Your task to perform on an android device: toggle improve location accuracy Image 0: 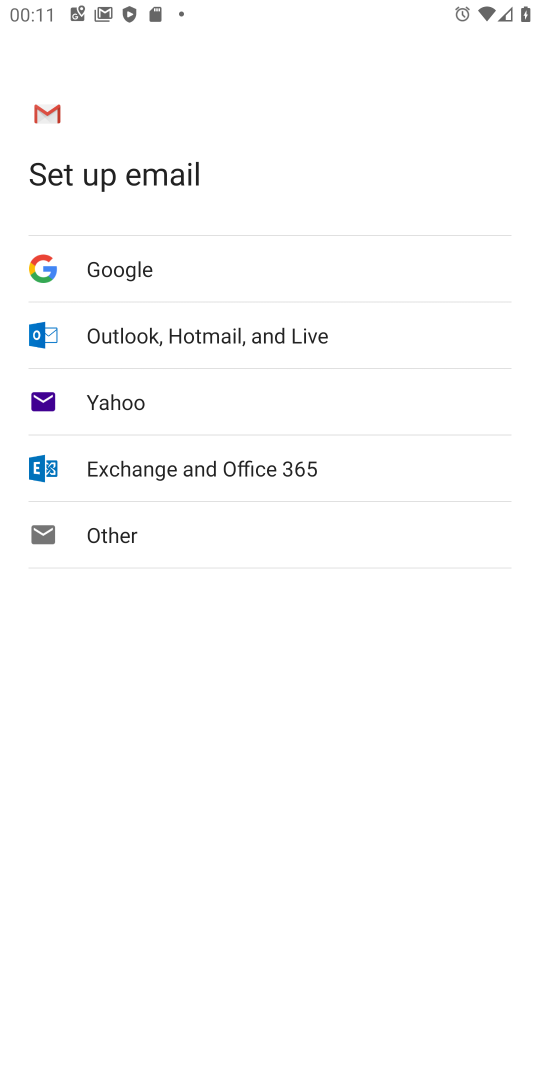
Step 0: press home button
Your task to perform on an android device: toggle improve location accuracy Image 1: 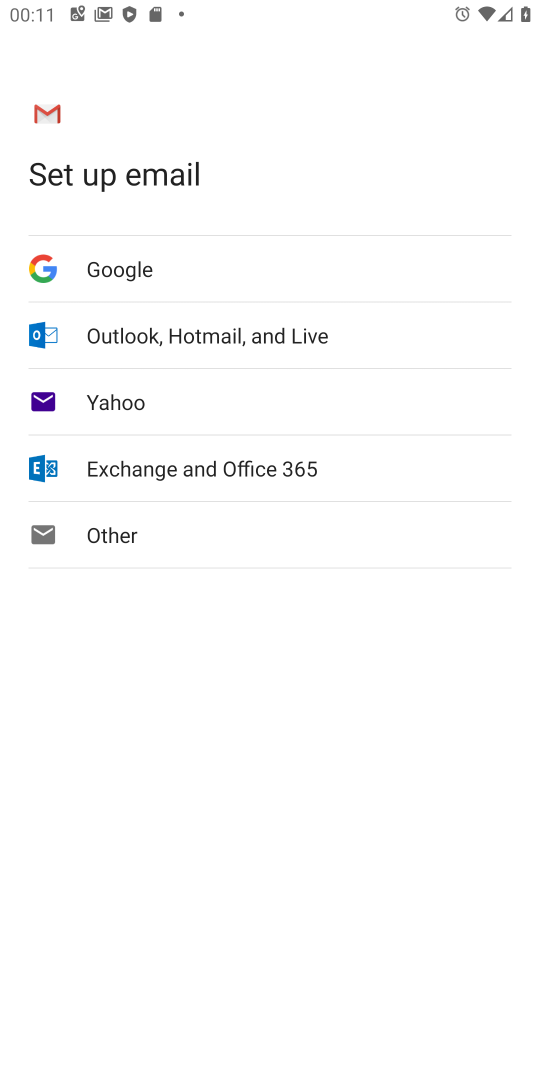
Step 1: press home button
Your task to perform on an android device: toggle improve location accuracy Image 2: 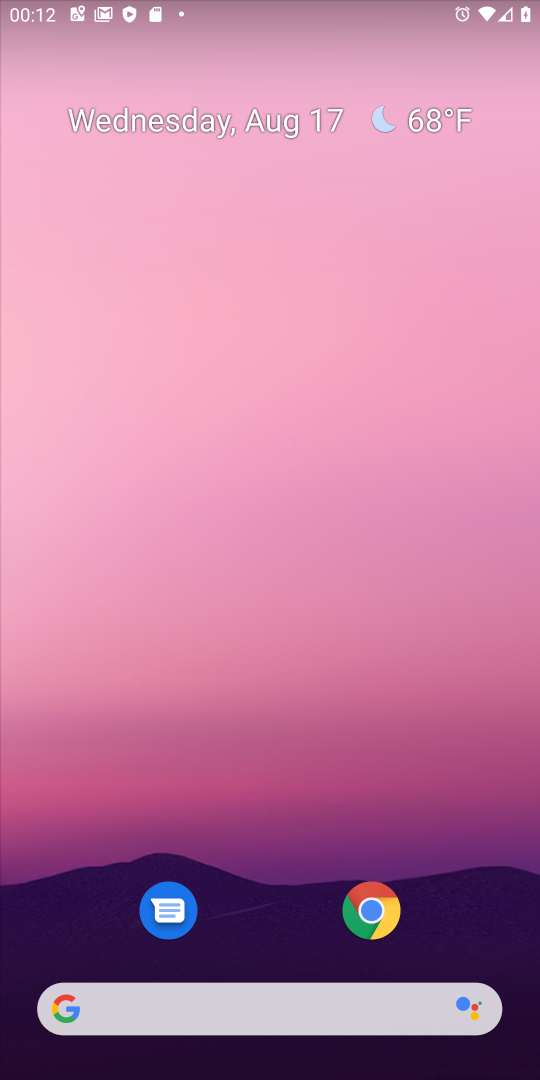
Step 2: drag from (241, 876) to (375, 2)
Your task to perform on an android device: toggle improve location accuracy Image 3: 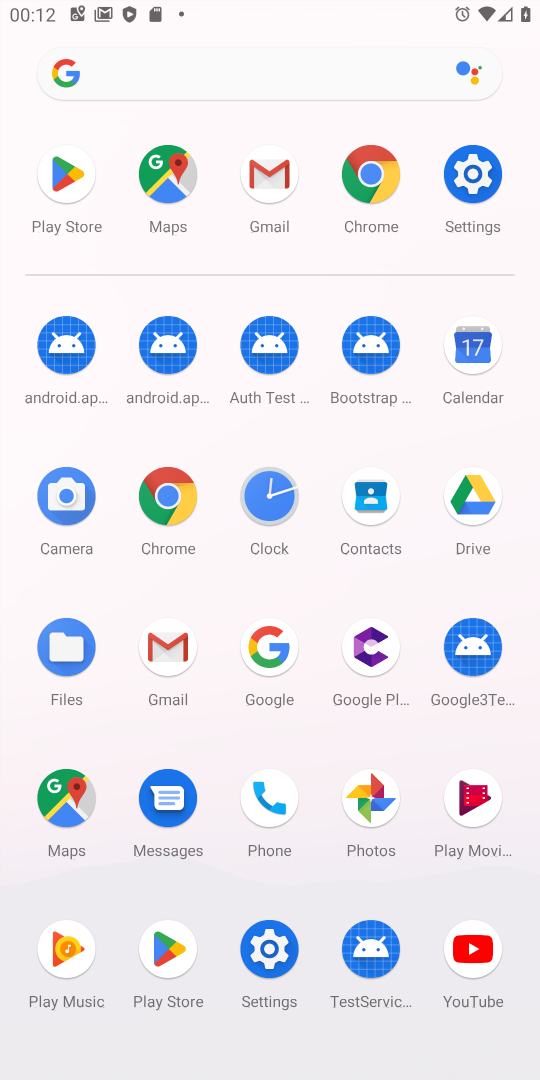
Step 3: click (264, 957)
Your task to perform on an android device: toggle improve location accuracy Image 4: 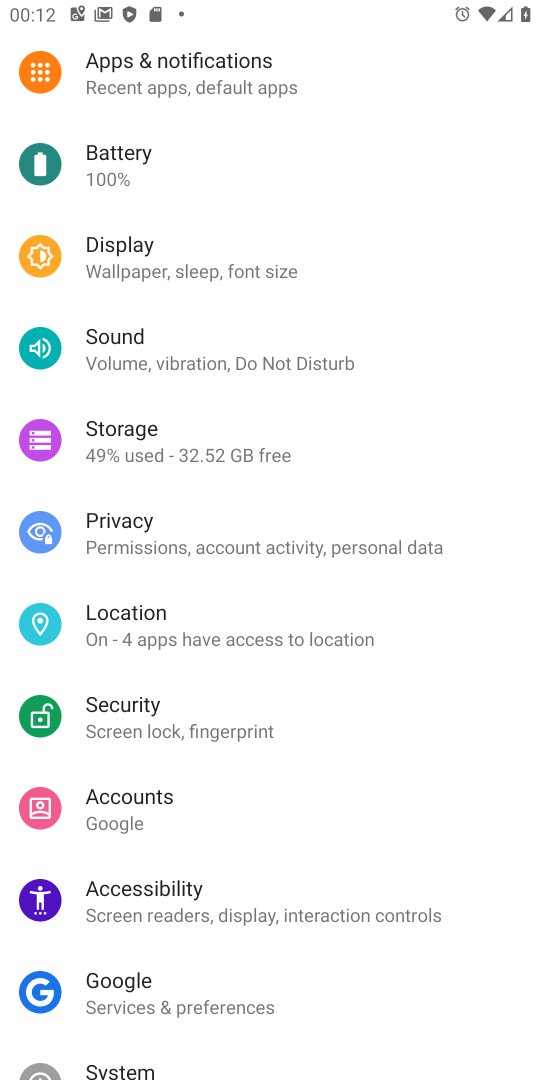
Step 4: click (143, 616)
Your task to perform on an android device: toggle improve location accuracy Image 5: 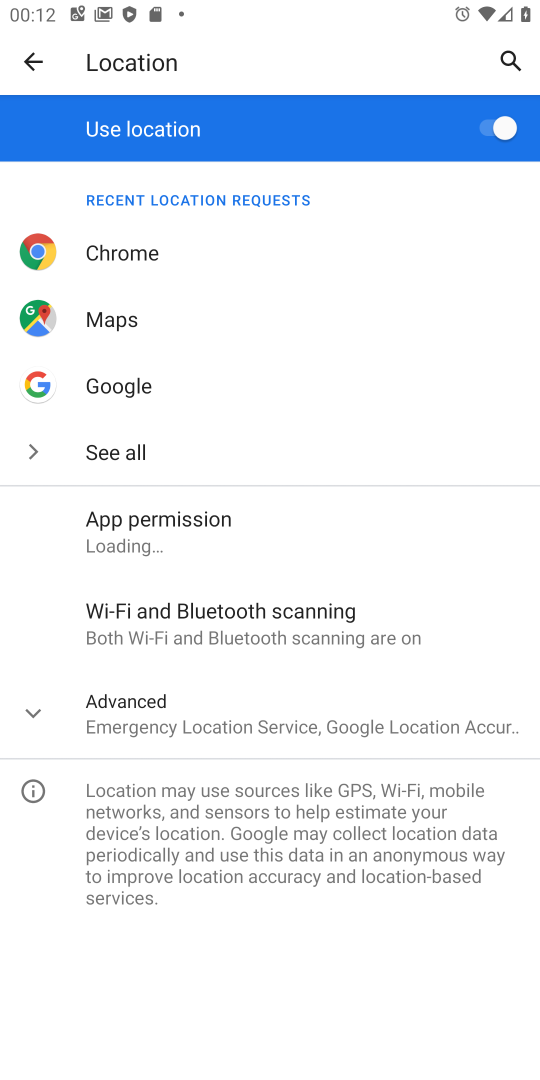
Step 5: click (145, 702)
Your task to perform on an android device: toggle improve location accuracy Image 6: 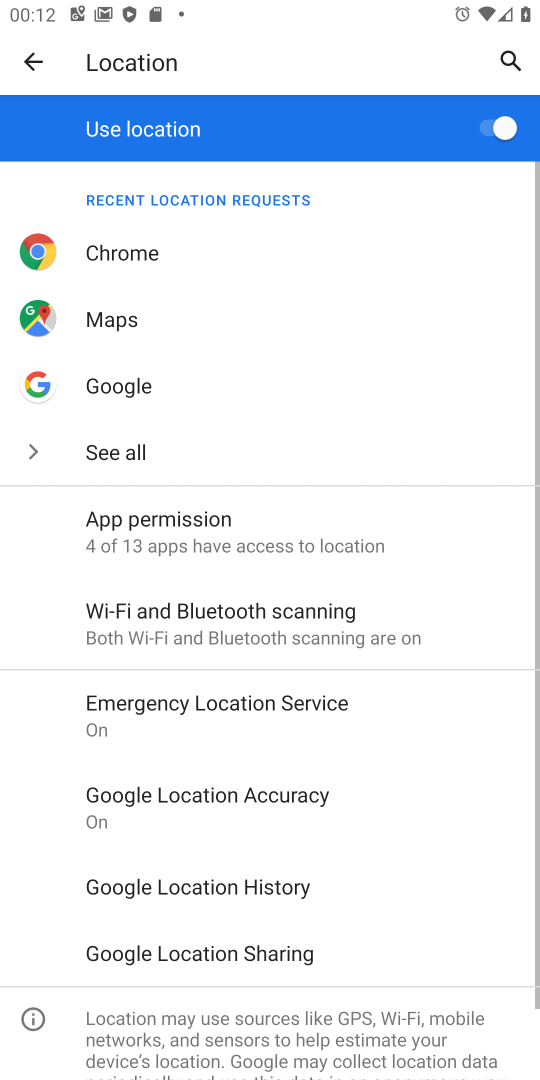
Step 6: click (276, 793)
Your task to perform on an android device: toggle improve location accuracy Image 7: 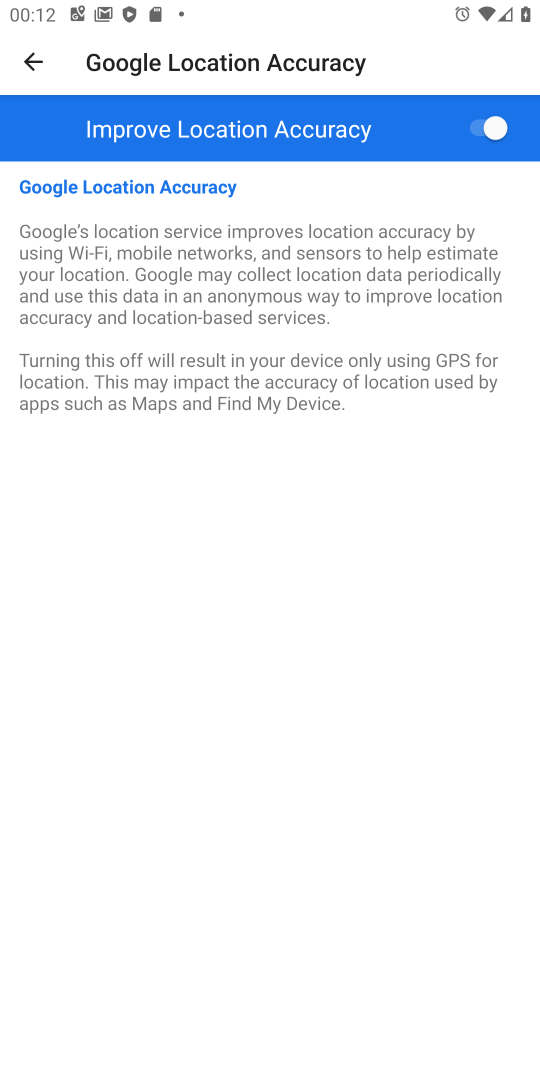
Step 7: click (490, 121)
Your task to perform on an android device: toggle improve location accuracy Image 8: 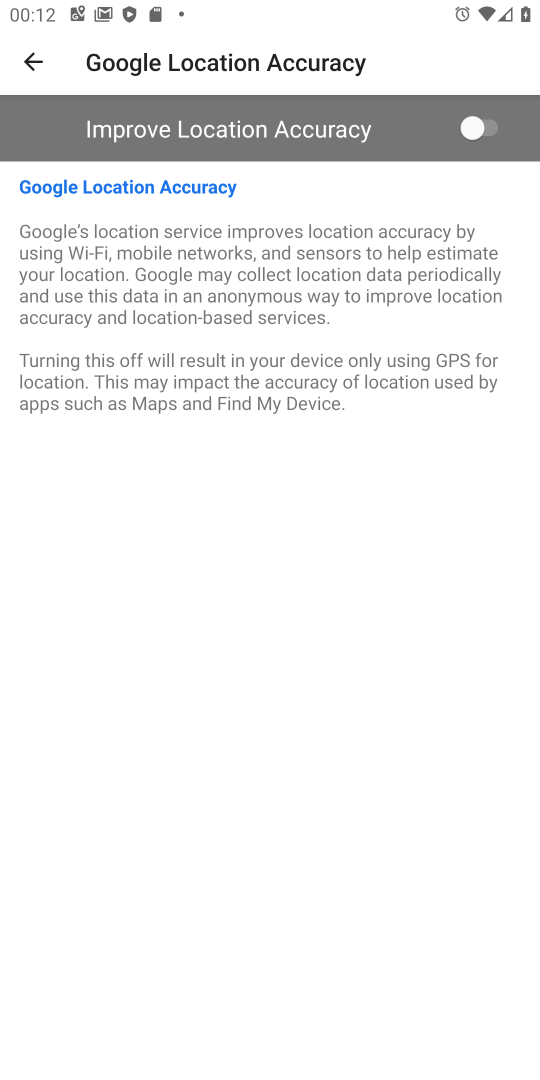
Step 8: task complete